Your task to perform on an android device: When is my next appointment? Image 0: 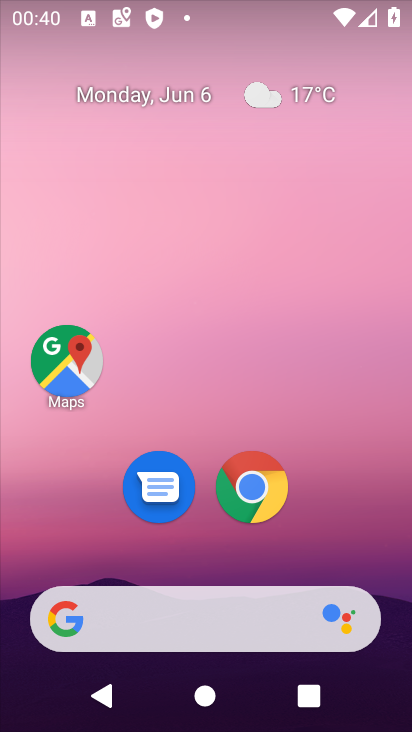
Step 0: drag from (400, 616) to (321, 75)
Your task to perform on an android device: When is my next appointment? Image 1: 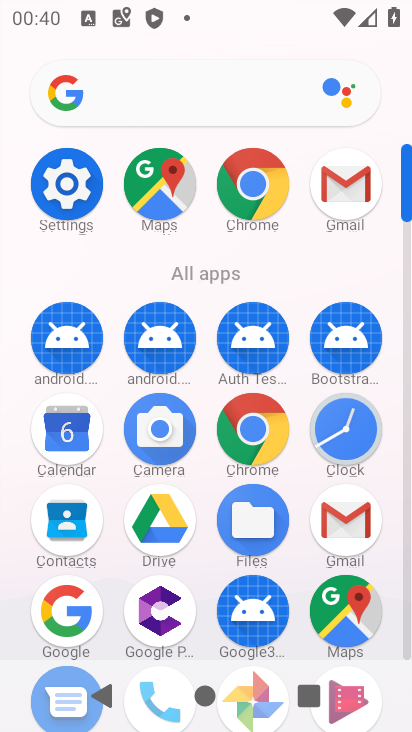
Step 1: click (407, 645)
Your task to perform on an android device: When is my next appointment? Image 2: 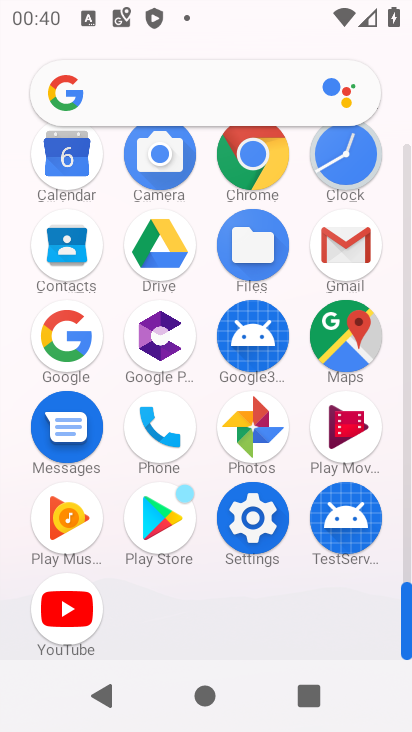
Step 2: click (62, 156)
Your task to perform on an android device: When is my next appointment? Image 3: 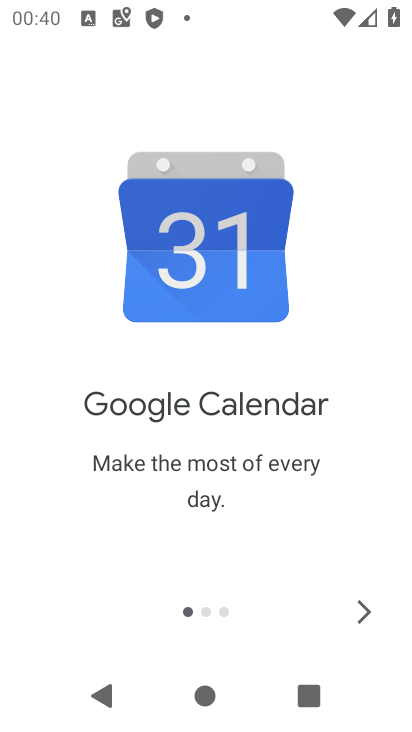
Step 3: click (360, 605)
Your task to perform on an android device: When is my next appointment? Image 4: 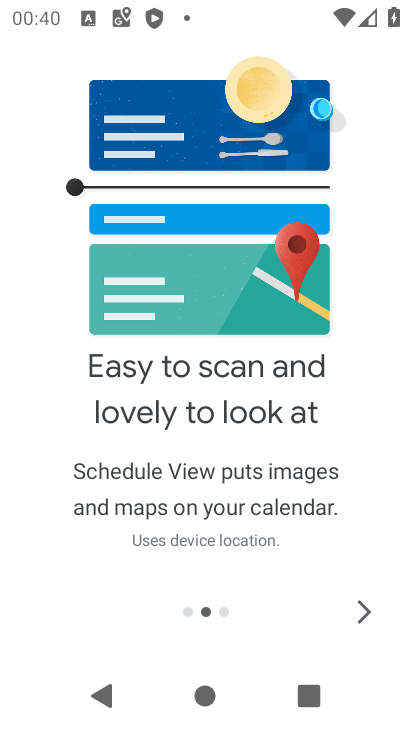
Step 4: click (363, 609)
Your task to perform on an android device: When is my next appointment? Image 5: 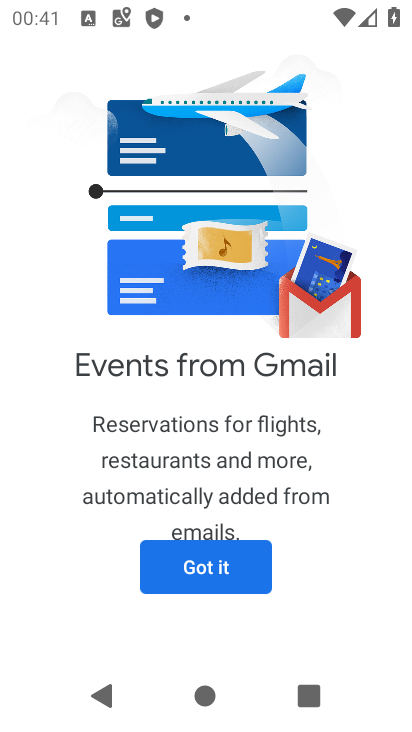
Step 5: click (200, 567)
Your task to perform on an android device: When is my next appointment? Image 6: 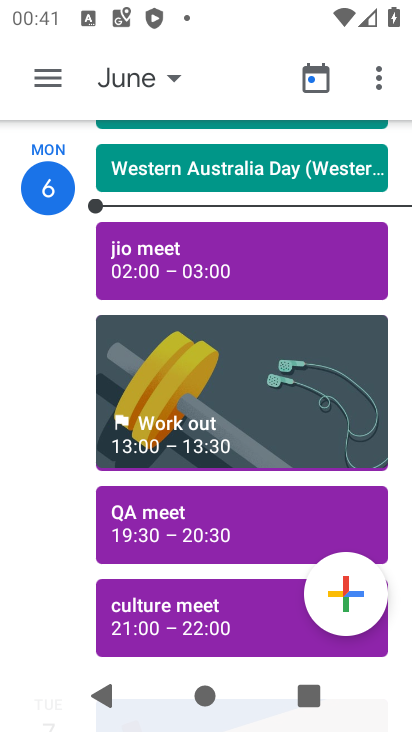
Step 6: click (47, 71)
Your task to perform on an android device: When is my next appointment? Image 7: 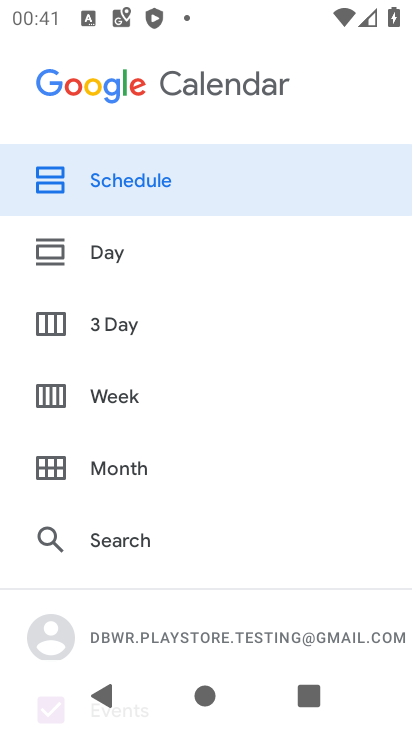
Step 7: click (141, 174)
Your task to perform on an android device: When is my next appointment? Image 8: 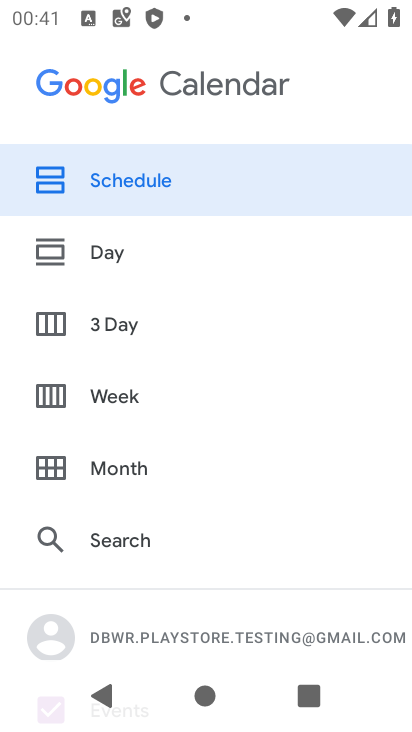
Step 8: click (163, 193)
Your task to perform on an android device: When is my next appointment? Image 9: 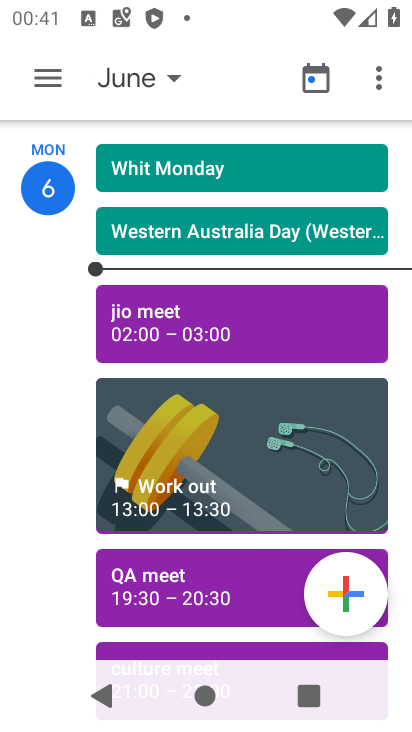
Step 9: task complete